Your task to perform on an android device: Search for Mexican restaurants on Maps Image 0: 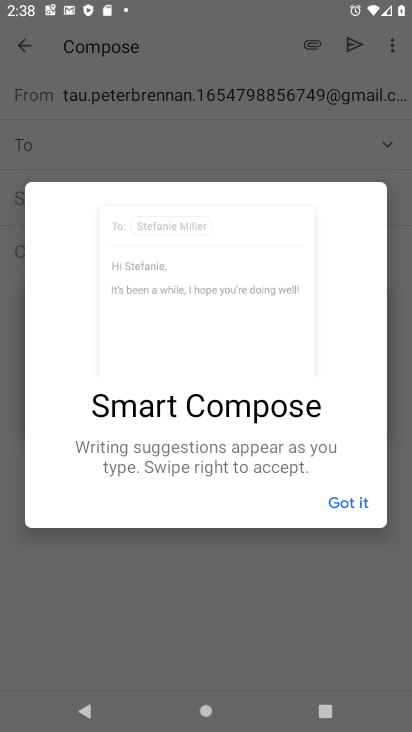
Step 0: press home button
Your task to perform on an android device: Search for Mexican restaurants on Maps Image 1: 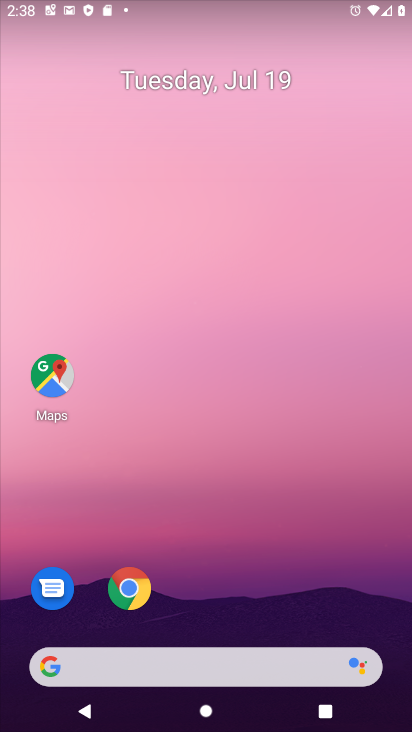
Step 1: drag from (361, 630) to (64, 2)
Your task to perform on an android device: Search for Mexican restaurants on Maps Image 2: 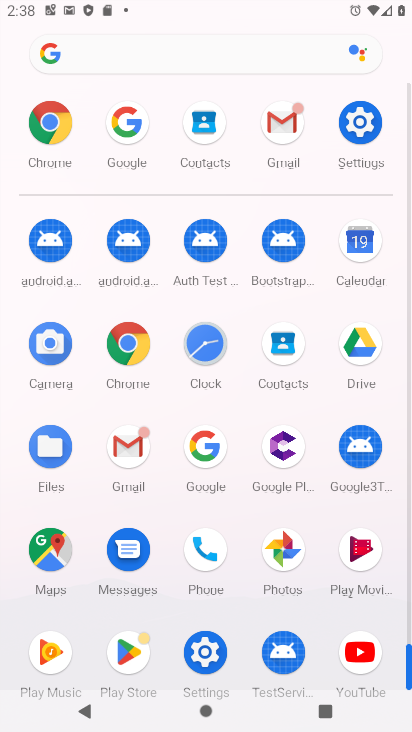
Step 2: click (46, 535)
Your task to perform on an android device: Search for Mexican restaurants on Maps Image 3: 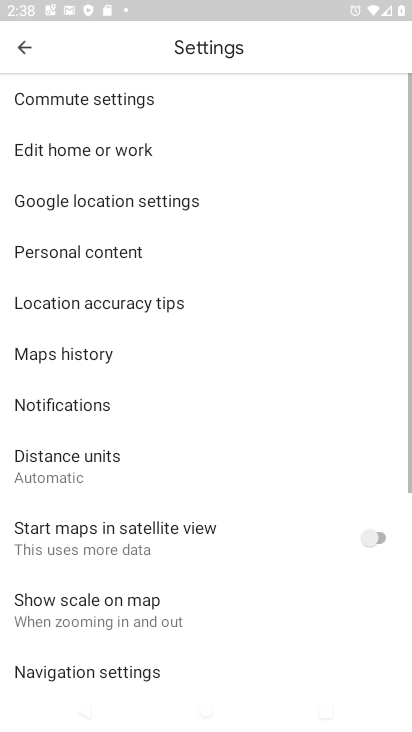
Step 3: press back button
Your task to perform on an android device: Search for Mexican restaurants on Maps Image 4: 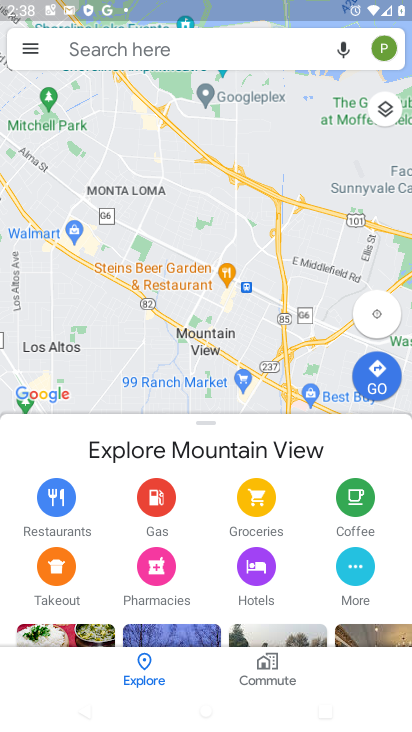
Step 4: click (152, 45)
Your task to perform on an android device: Search for Mexican restaurants on Maps Image 5: 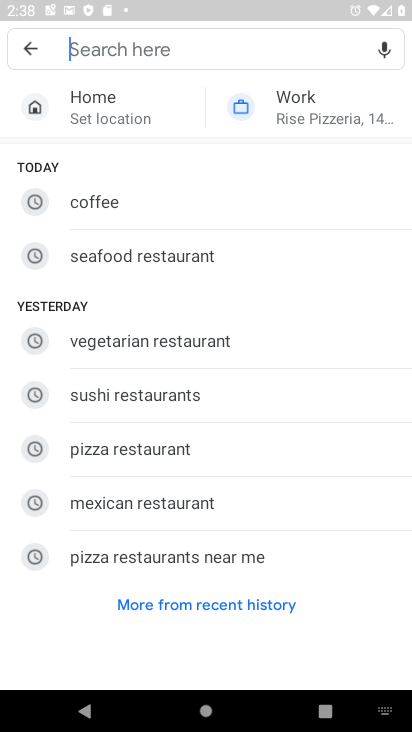
Step 5: click (137, 510)
Your task to perform on an android device: Search for Mexican restaurants on Maps Image 6: 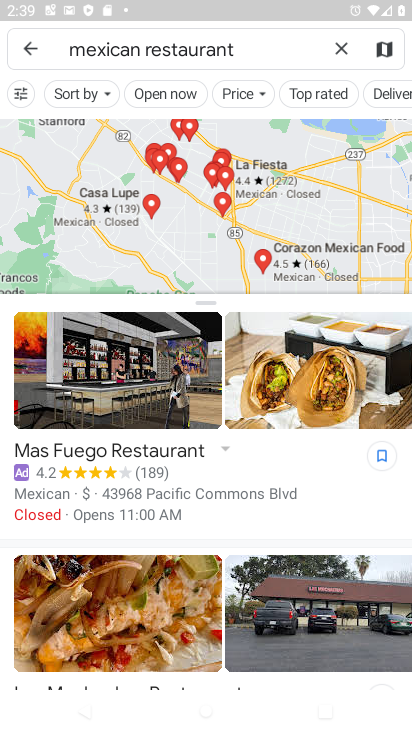
Step 6: task complete